Your task to perform on an android device: open app "Nova Launcher" (install if not already installed), go to login, and select forgot password Image 0: 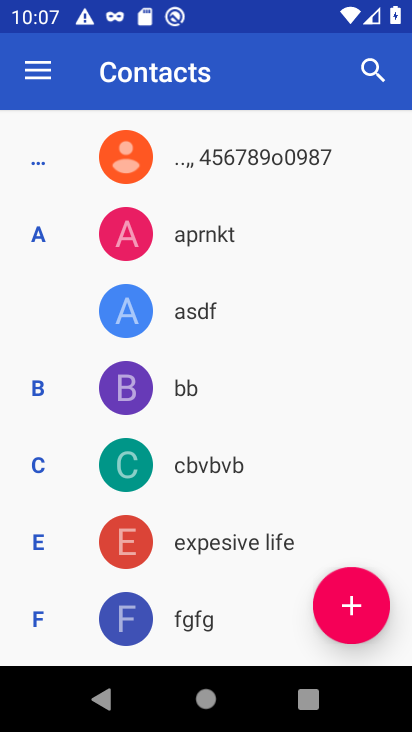
Step 0: press home button
Your task to perform on an android device: open app "Nova Launcher" (install if not already installed), go to login, and select forgot password Image 1: 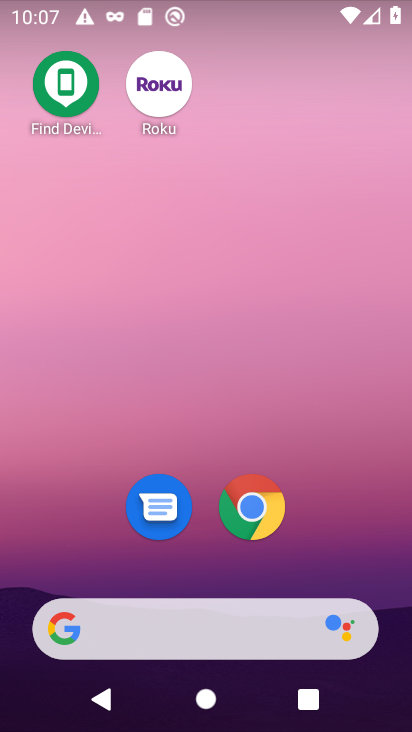
Step 1: drag from (150, 626) to (179, 196)
Your task to perform on an android device: open app "Nova Launcher" (install if not already installed), go to login, and select forgot password Image 2: 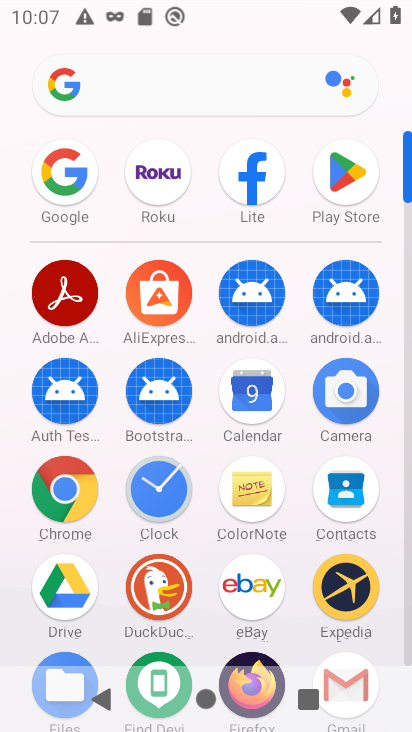
Step 2: click (346, 183)
Your task to perform on an android device: open app "Nova Launcher" (install if not already installed), go to login, and select forgot password Image 3: 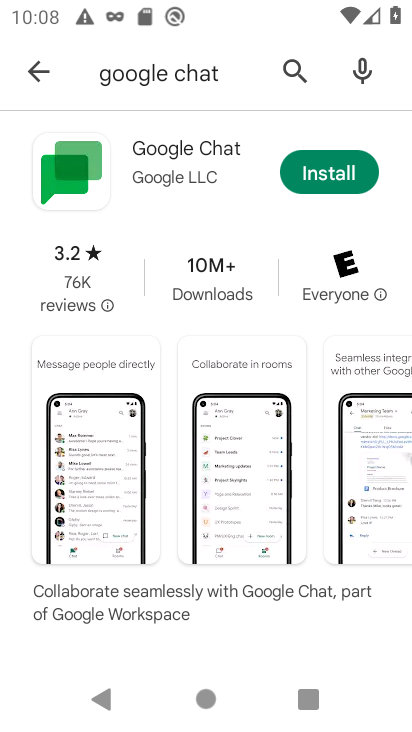
Step 3: click (285, 69)
Your task to perform on an android device: open app "Nova Launcher" (install if not already installed), go to login, and select forgot password Image 4: 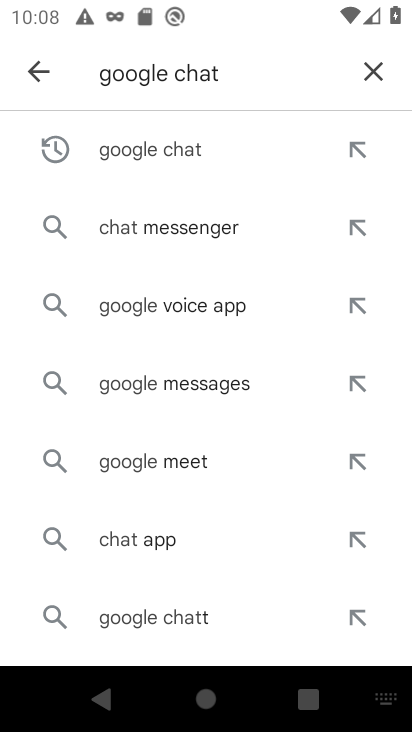
Step 4: click (374, 73)
Your task to perform on an android device: open app "Nova Launcher" (install if not already installed), go to login, and select forgot password Image 5: 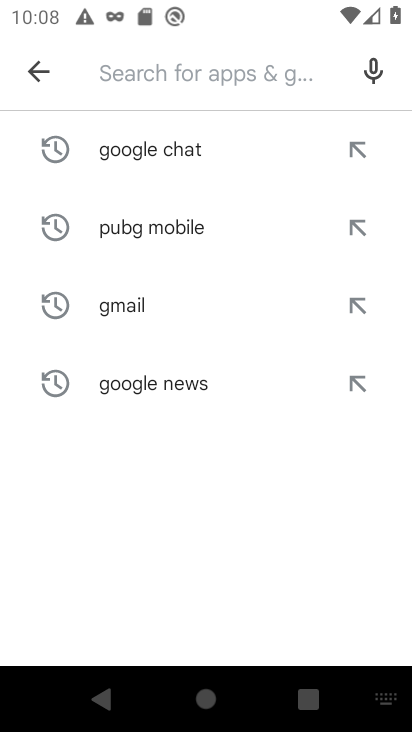
Step 5: type "Nova Launcher"
Your task to perform on an android device: open app "Nova Launcher" (install if not already installed), go to login, and select forgot password Image 6: 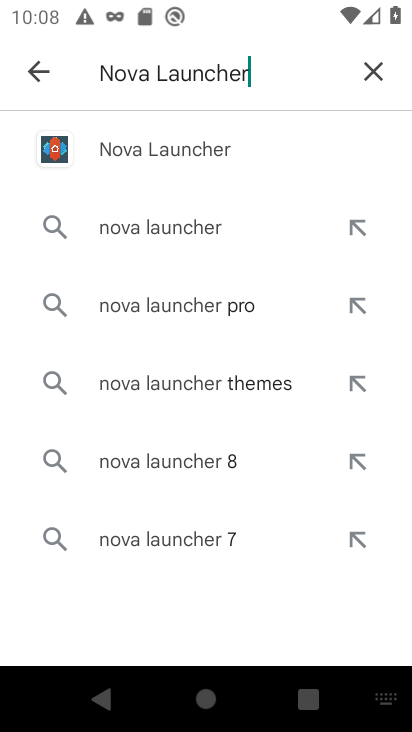
Step 6: click (195, 146)
Your task to perform on an android device: open app "Nova Launcher" (install if not already installed), go to login, and select forgot password Image 7: 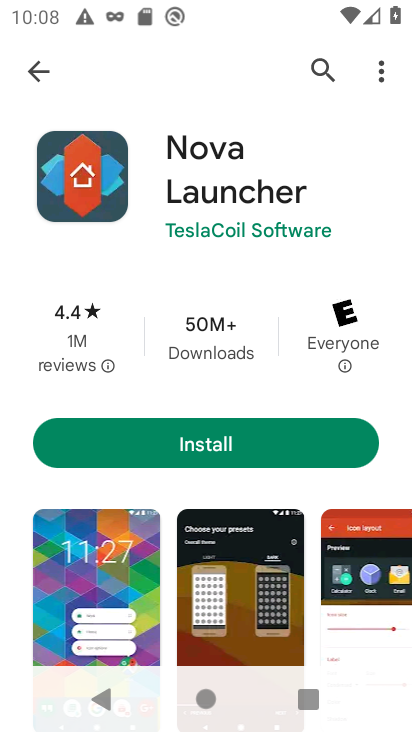
Step 7: click (214, 443)
Your task to perform on an android device: open app "Nova Launcher" (install if not already installed), go to login, and select forgot password Image 8: 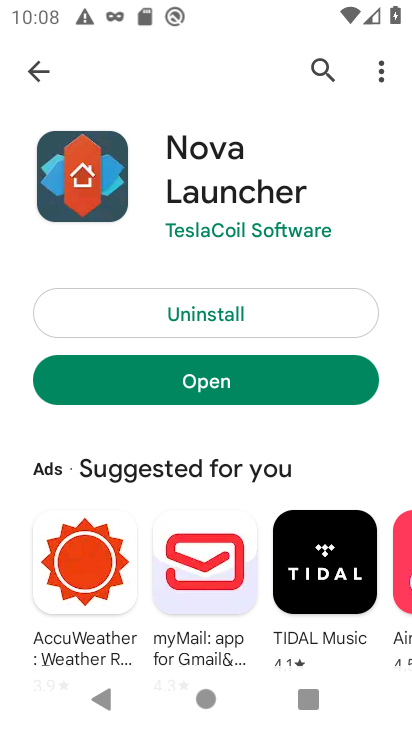
Step 8: click (219, 393)
Your task to perform on an android device: open app "Nova Launcher" (install if not already installed), go to login, and select forgot password Image 9: 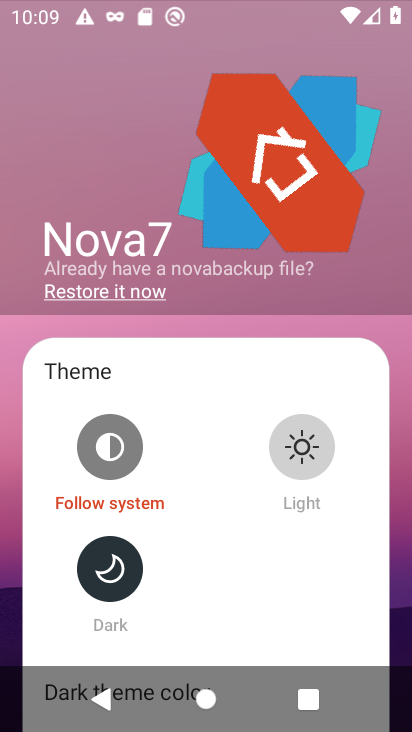
Step 9: drag from (250, 488) to (341, 259)
Your task to perform on an android device: open app "Nova Launcher" (install if not already installed), go to login, and select forgot password Image 10: 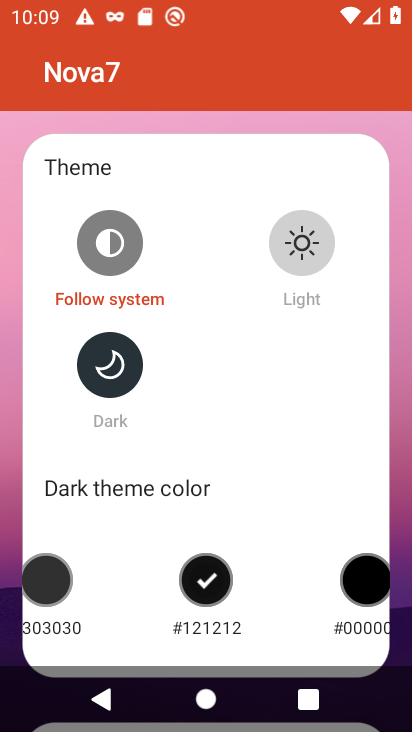
Step 10: drag from (234, 639) to (278, 319)
Your task to perform on an android device: open app "Nova Launcher" (install if not already installed), go to login, and select forgot password Image 11: 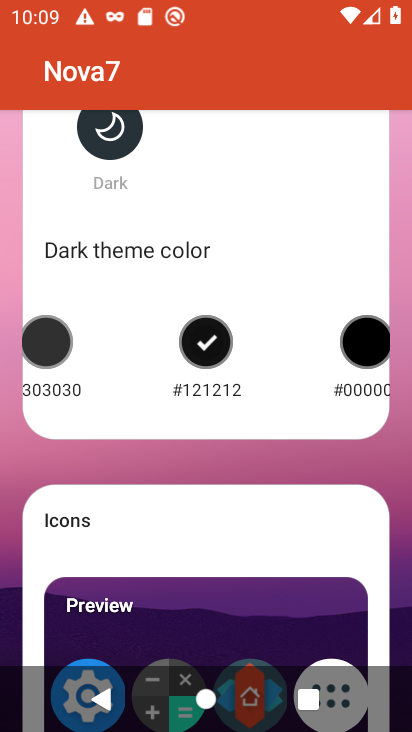
Step 11: drag from (244, 514) to (302, 183)
Your task to perform on an android device: open app "Nova Launcher" (install if not already installed), go to login, and select forgot password Image 12: 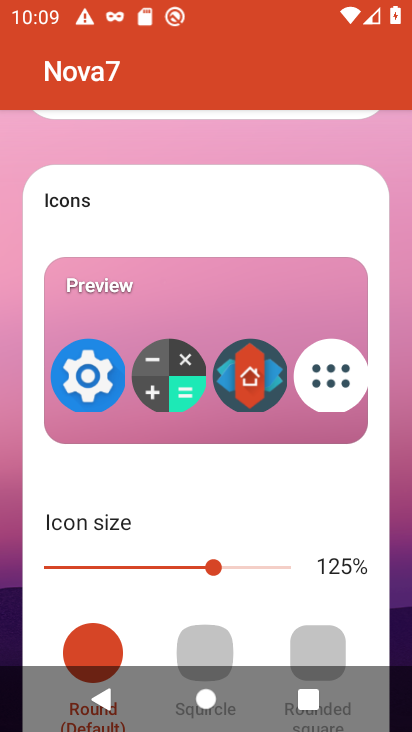
Step 12: drag from (225, 486) to (326, 219)
Your task to perform on an android device: open app "Nova Launcher" (install if not already installed), go to login, and select forgot password Image 13: 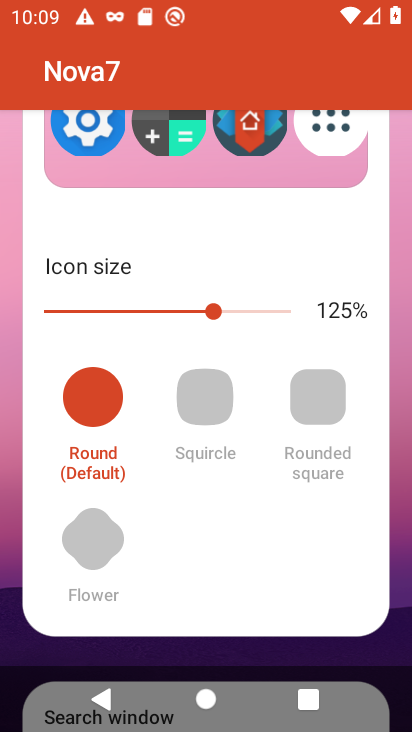
Step 13: drag from (217, 565) to (331, 281)
Your task to perform on an android device: open app "Nova Launcher" (install if not already installed), go to login, and select forgot password Image 14: 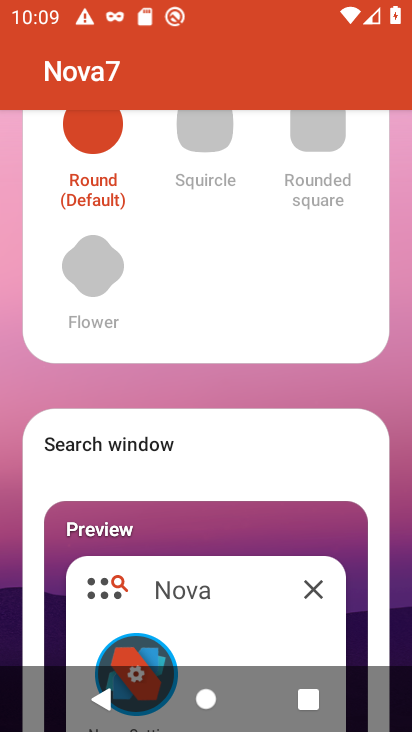
Step 14: drag from (232, 590) to (322, 355)
Your task to perform on an android device: open app "Nova Launcher" (install if not already installed), go to login, and select forgot password Image 15: 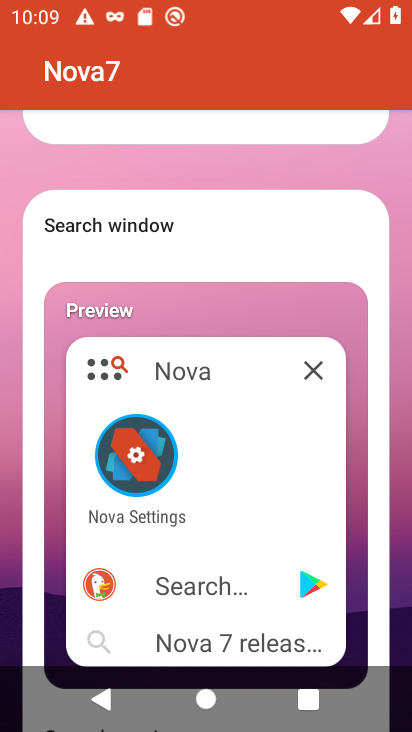
Step 15: drag from (233, 576) to (333, 305)
Your task to perform on an android device: open app "Nova Launcher" (install if not already installed), go to login, and select forgot password Image 16: 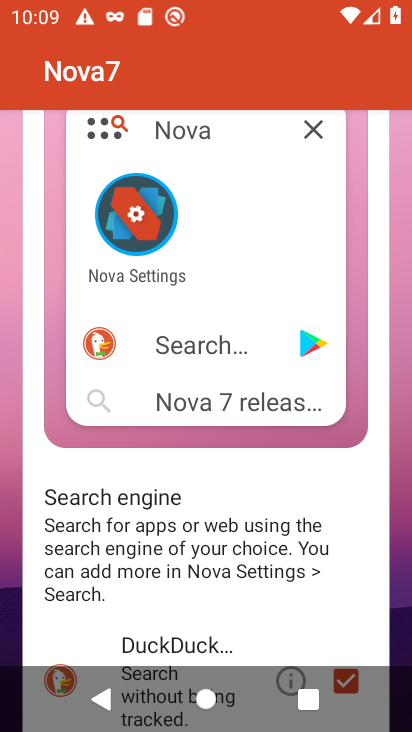
Step 16: drag from (247, 581) to (351, 323)
Your task to perform on an android device: open app "Nova Launcher" (install if not already installed), go to login, and select forgot password Image 17: 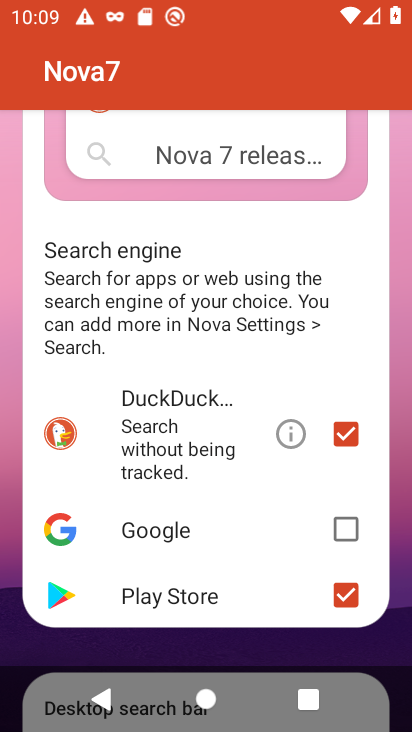
Step 17: drag from (220, 589) to (323, 288)
Your task to perform on an android device: open app "Nova Launcher" (install if not already installed), go to login, and select forgot password Image 18: 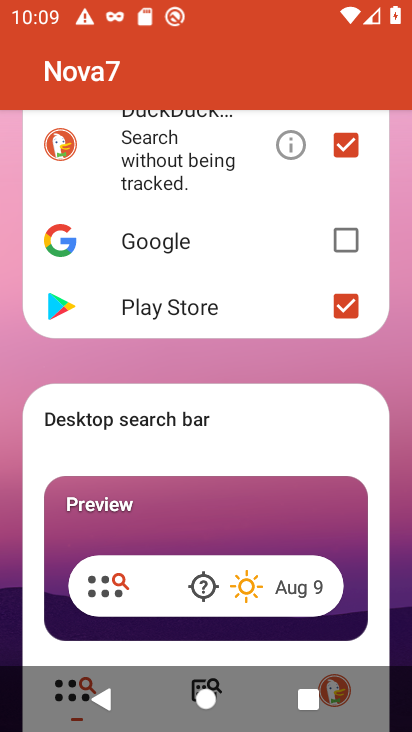
Step 18: drag from (203, 589) to (312, 249)
Your task to perform on an android device: open app "Nova Launcher" (install if not already installed), go to login, and select forgot password Image 19: 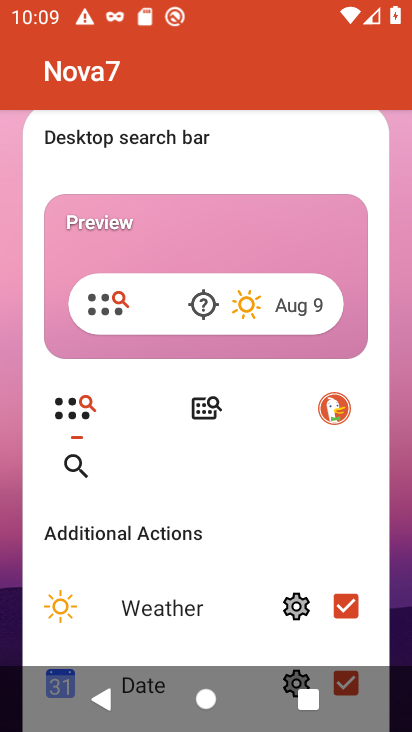
Step 19: drag from (199, 551) to (283, 246)
Your task to perform on an android device: open app "Nova Launcher" (install if not already installed), go to login, and select forgot password Image 20: 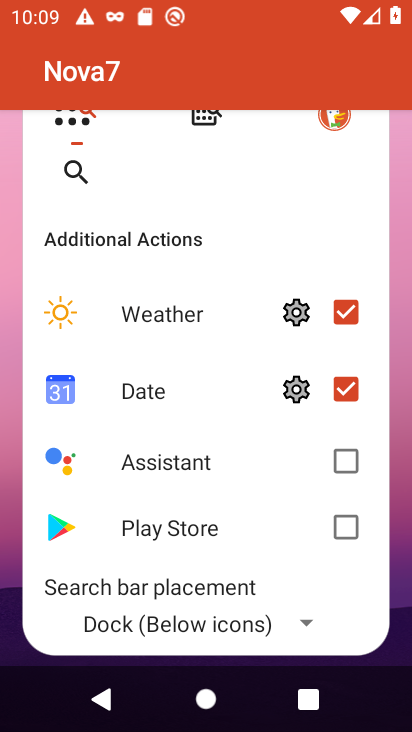
Step 20: drag from (207, 552) to (302, 235)
Your task to perform on an android device: open app "Nova Launcher" (install if not already installed), go to login, and select forgot password Image 21: 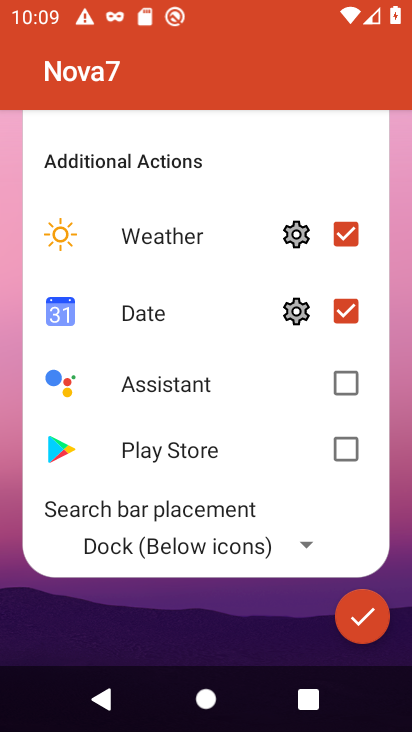
Step 21: click (354, 620)
Your task to perform on an android device: open app "Nova Launcher" (install if not already installed), go to login, and select forgot password Image 22: 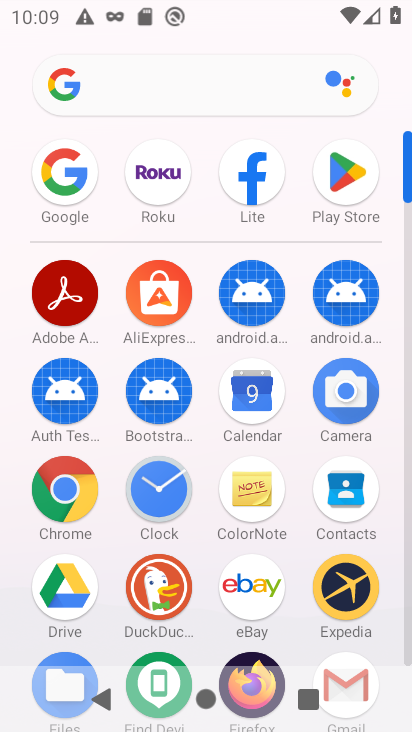
Step 22: task complete